Your task to perform on an android device: turn on wifi Image 0: 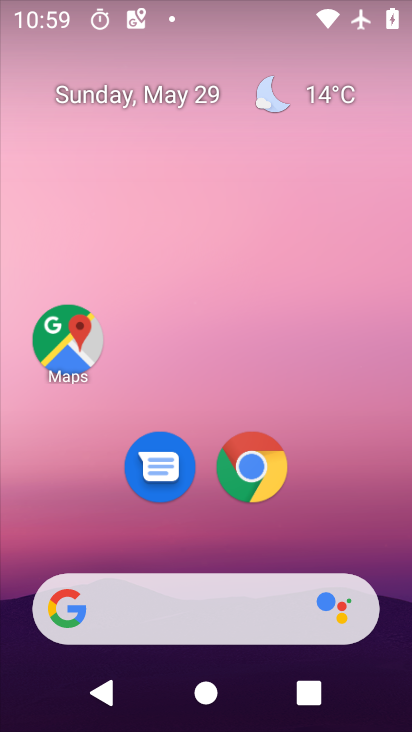
Step 0: drag from (192, 525) to (198, 198)
Your task to perform on an android device: turn on wifi Image 1: 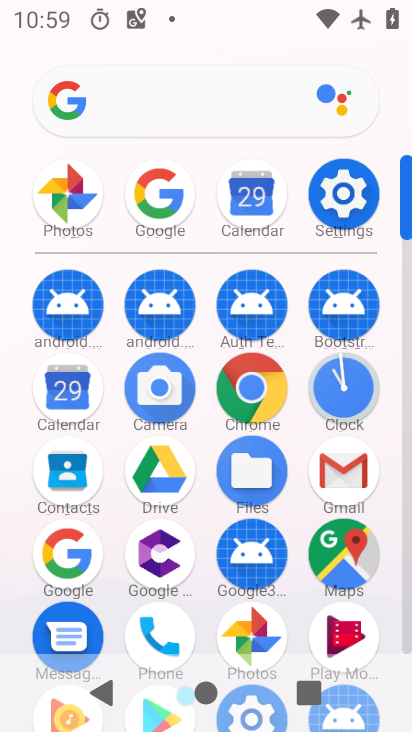
Step 1: click (360, 201)
Your task to perform on an android device: turn on wifi Image 2: 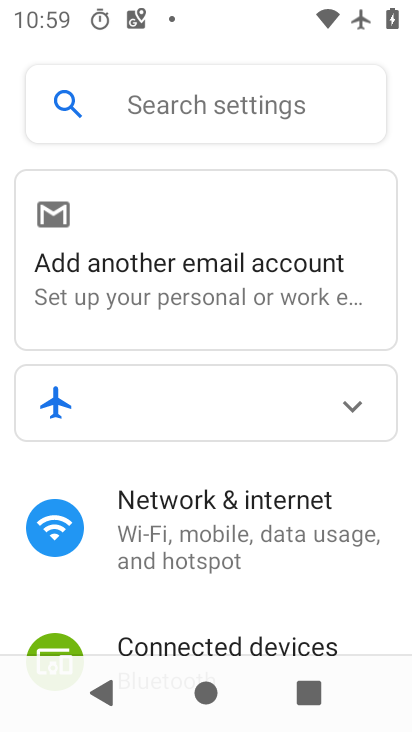
Step 2: drag from (253, 594) to (246, 249)
Your task to perform on an android device: turn on wifi Image 3: 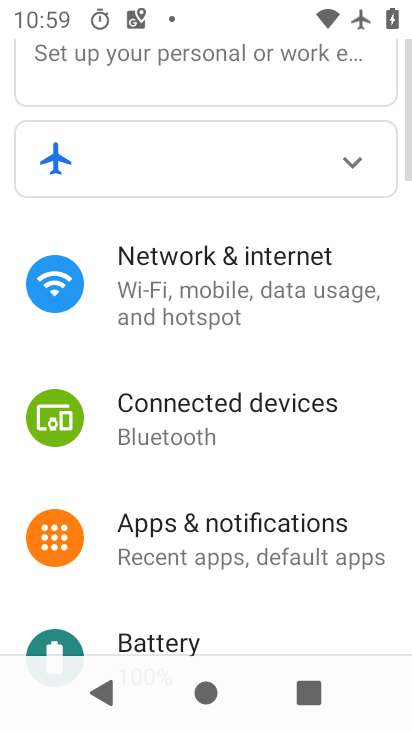
Step 3: click (236, 262)
Your task to perform on an android device: turn on wifi Image 4: 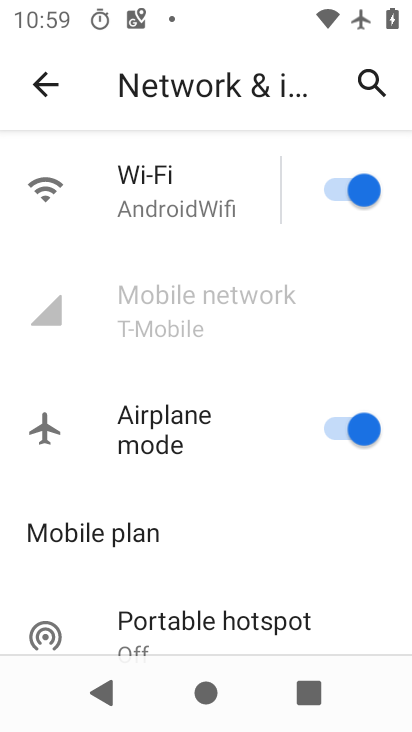
Step 4: task complete